Your task to perform on an android device: turn smart compose on in the gmail app Image 0: 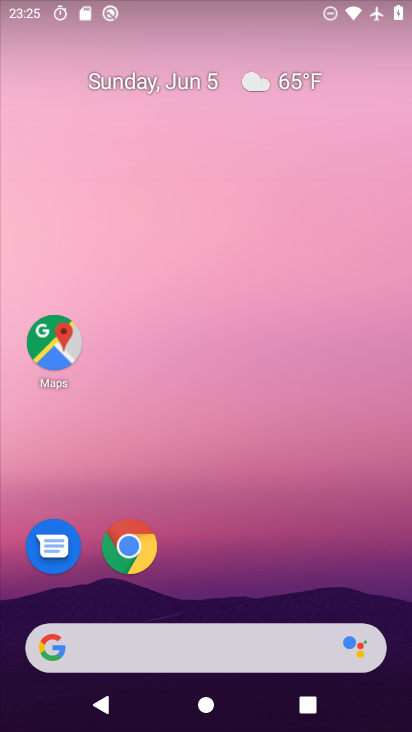
Step 0: drag from (201, 607) to (200, 81)
Your task to perform on an android device: turn smart compose on in the gmail app Image 1: 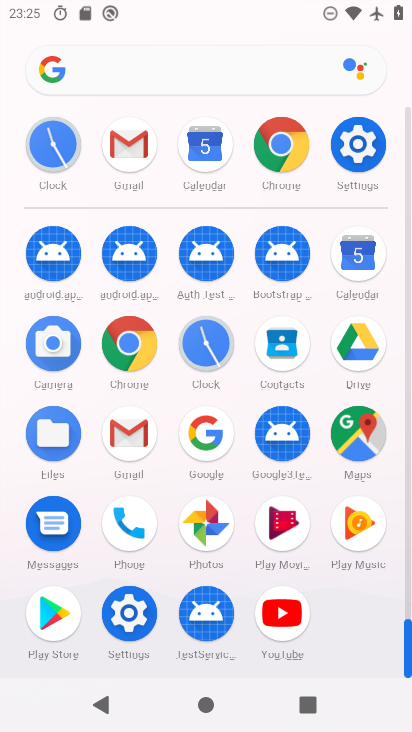
Step 1: click (129, 448)
Your task to perform on an android device: turn smart compose on in the gmail app Image 2: 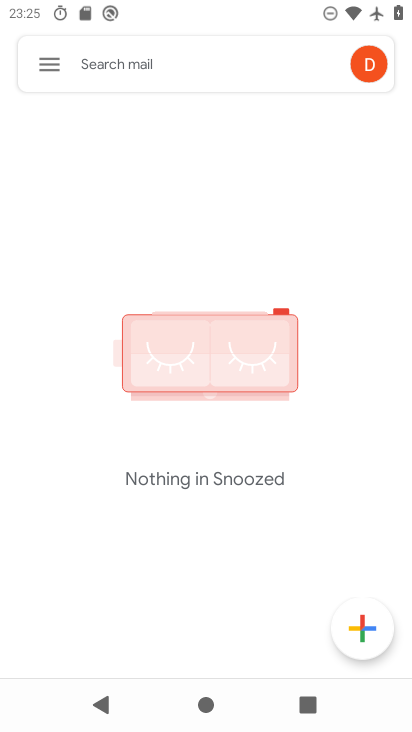
Step 2: click (54, 75)
Your task to perform on an android device: turn smart compose on in the gmail app Image 3: 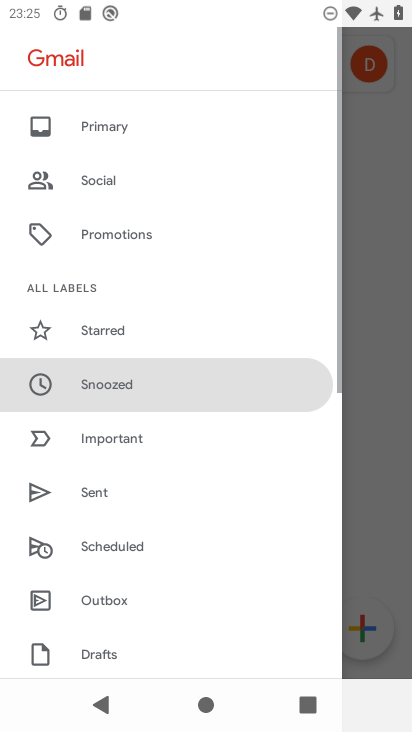
Step 3: drag from (207, 622) to (264, 56)
Your task to perform on an android device: turn smart compose on in the gmail app Image 4: 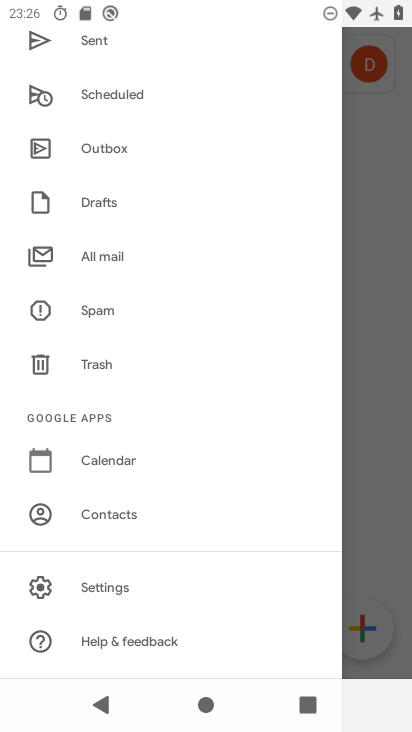
Step 4: click (126, 588)
Your task to perform on an android device: turn smart compose on in the gmail app Image 5: 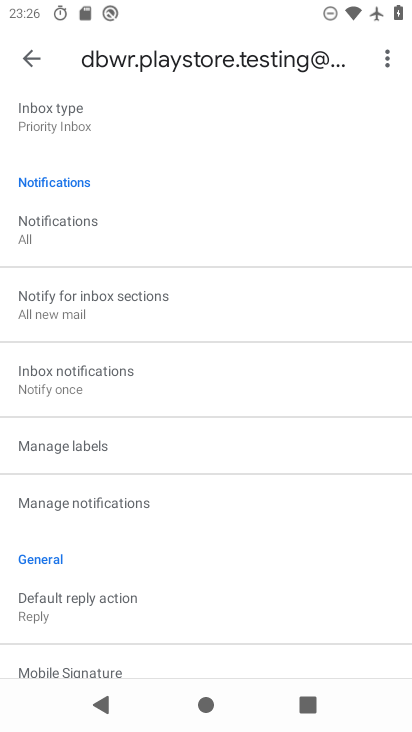
Step 5: task complete